Your task to perform on an android device: What is the recent news? Image 0: 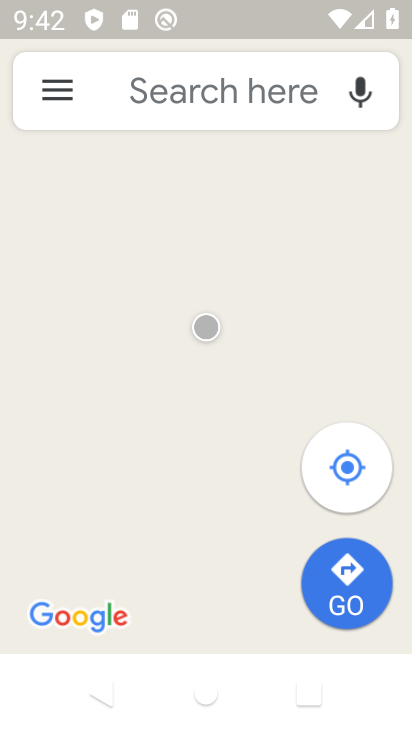
Step 0: press home button
Your task to perform on an android device: What is the recent news? Image 1: 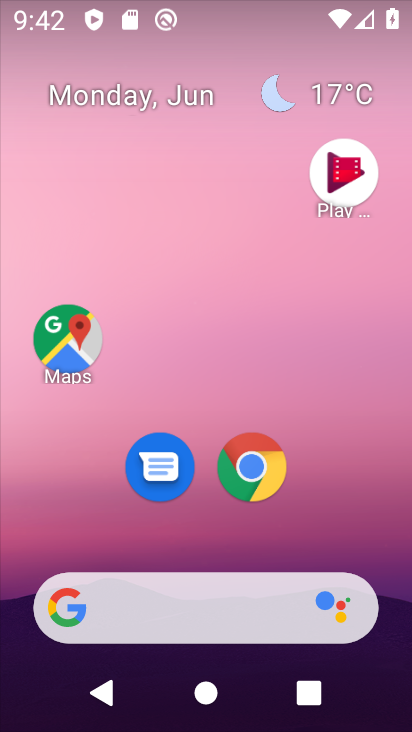
Step 1: task complete